Your task to perform on an android device: check storage Image 0: 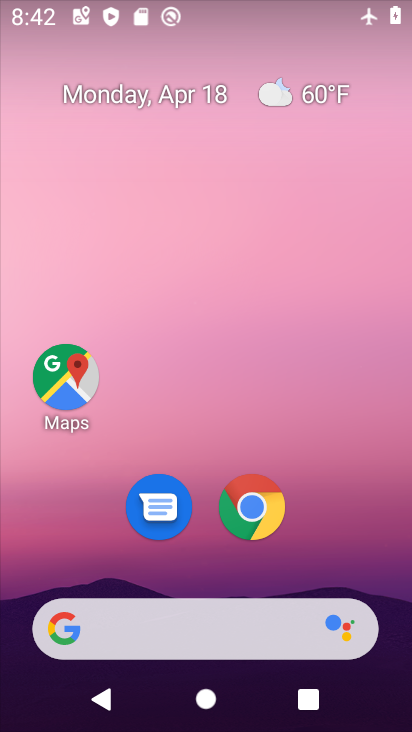
Step 0: drag from (327, 493) to (331, 173)
Your task to perform on an android device: check storage Image 1: 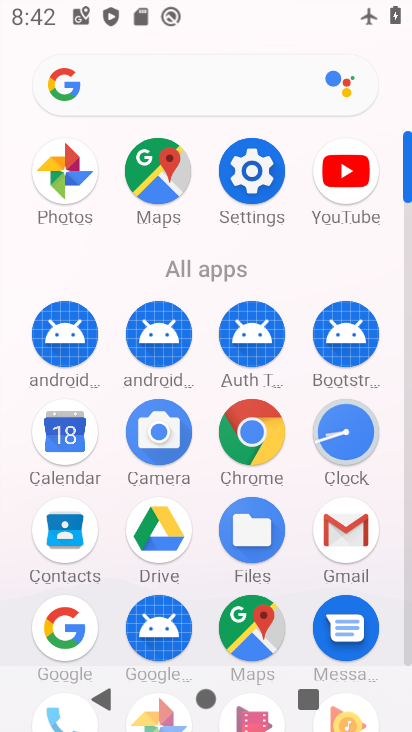
Step 1: drag from (312, 574) to (310, 350)
Your task to perform on an android device: check storage Image 2: 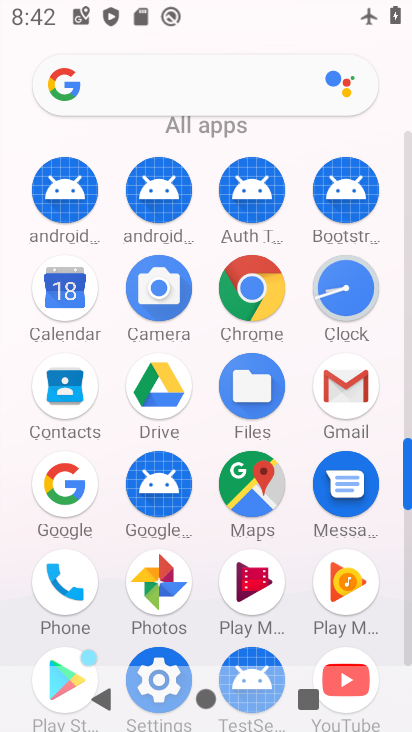
Step 2: drag from (294, 509) to (297, 370)
Your task to perform on an android device: check storage Image 3: 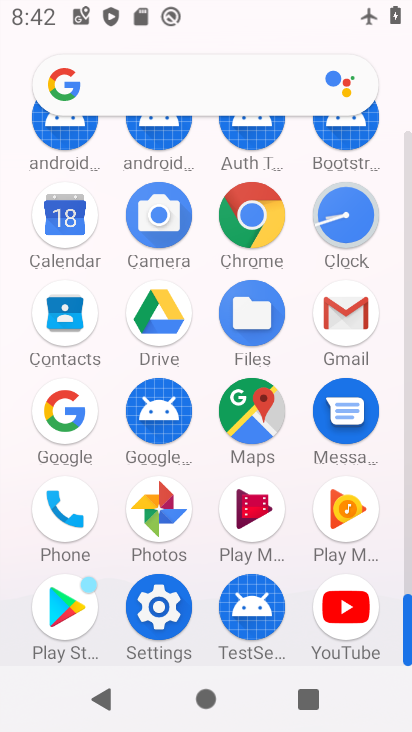
Step 3: click (168, 610)
Your task to perform on an android device: check storage Image 4: 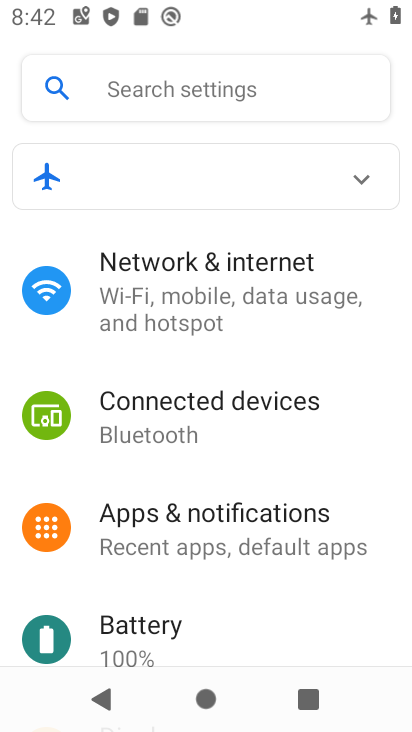
Step 4: drag from (274, 610) to (274, 331)
Your task to perform on an android device: check storage Image 5: 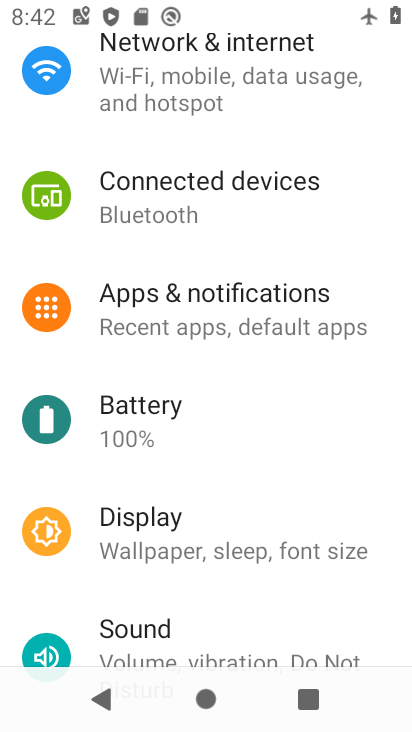
Step 5: drag from (252, 641) to (254, 421)
Your task to perform on an android device: check storage Image 6: 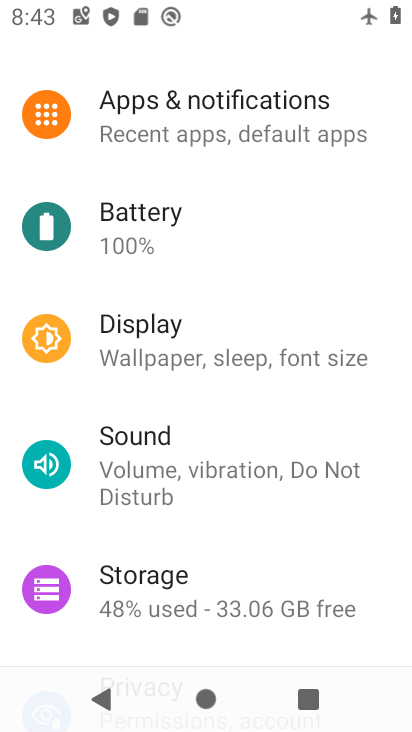
Step 6: click (198, 615)
Your task to perform on an android device: check storage Image 7: 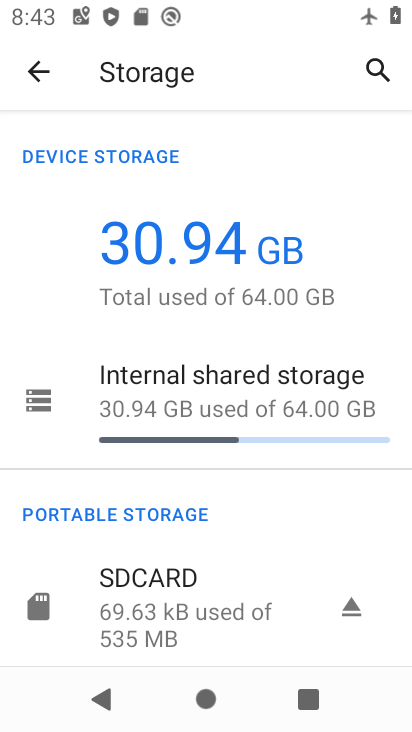
Step 7: task complete